Your task to perform on an android device: open app "Life360: Find Family & Friends" Image 0: 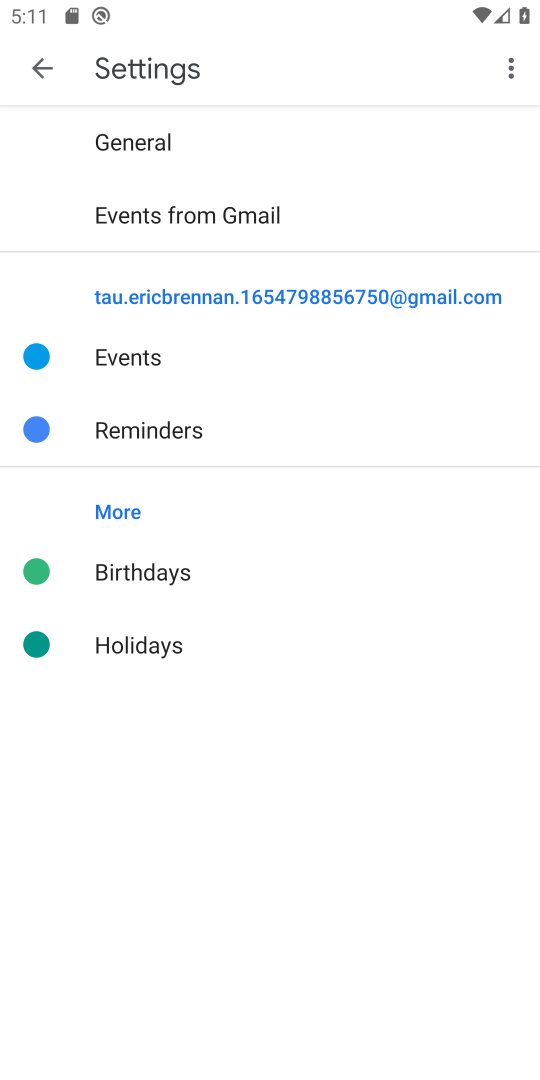
Step 0: press back button
Your task to perform on an android device: open app "Life360: Find Family & Friends" Image 1: 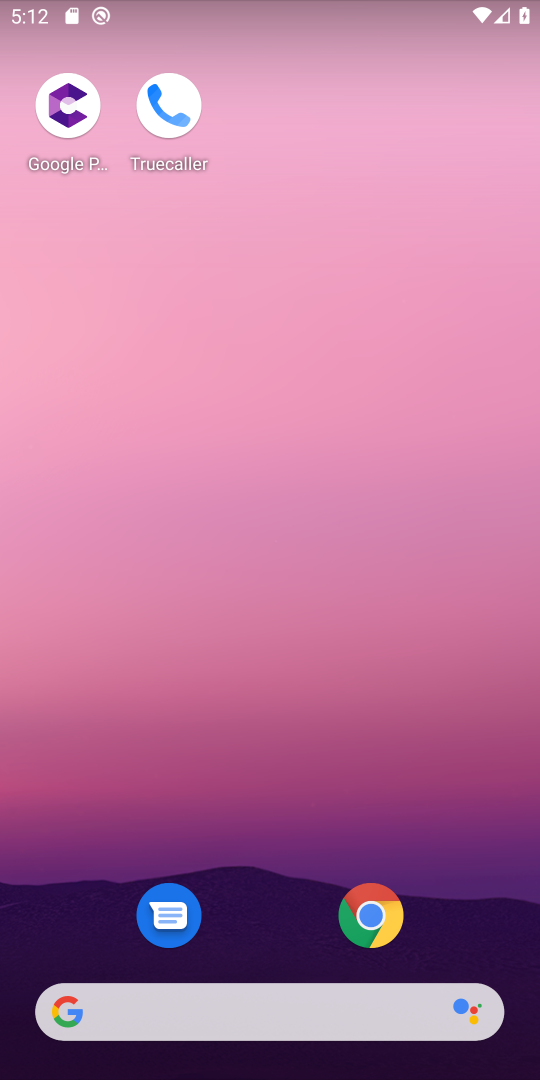
Step 1: drag from (106, 848) to (127, 216)
Your task to perform on an android device: open app "Life360: Find Family & Friends" Image 2: 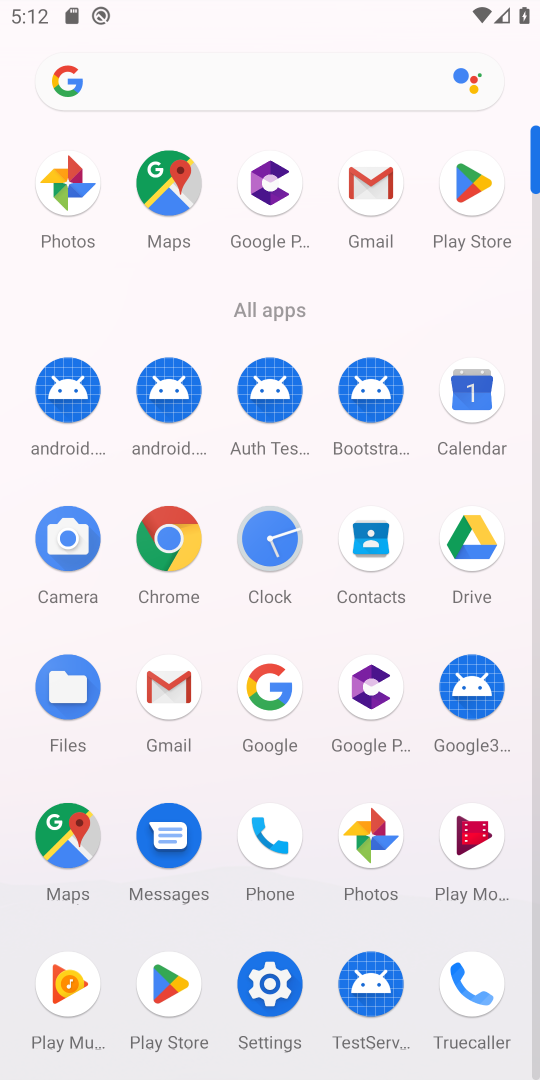
Step 2: click (472, 165)
Your task to perform on an android device: open app "Life360: Find Family & Friends" Image 3: 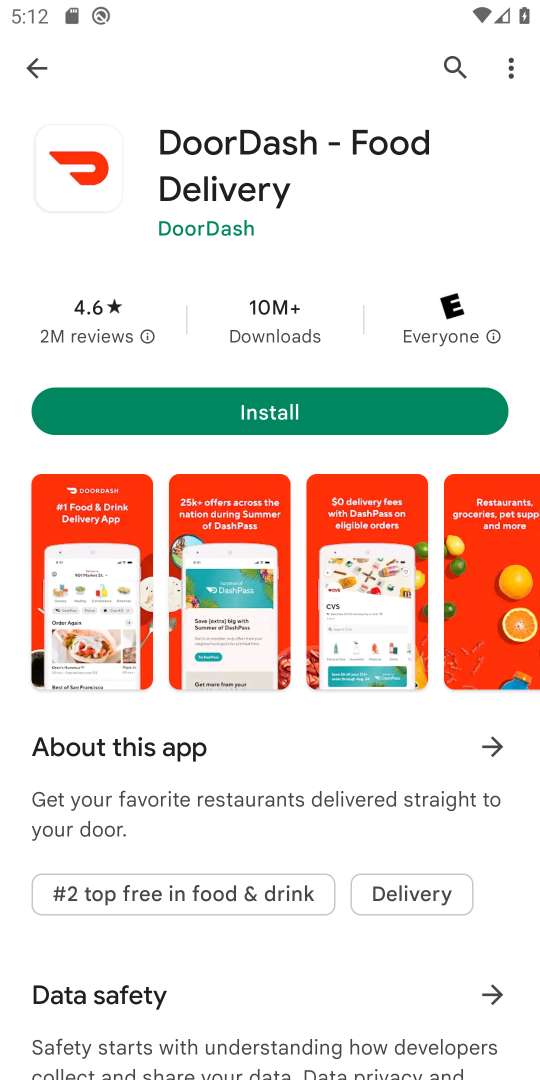
Step 3: click (447, 57)
Your task to perform on an android device: open app "Life360: Find Family & Friends" Image 4: 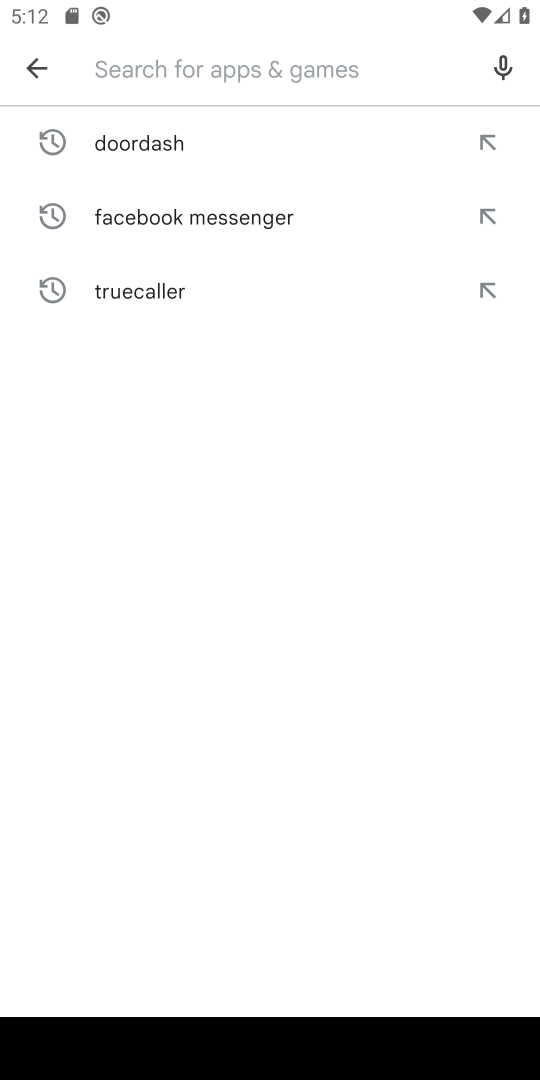
Step 4: type "life360"
Your task to perform on an android device: open app "Life360: Find Family & Friends" Image 5: 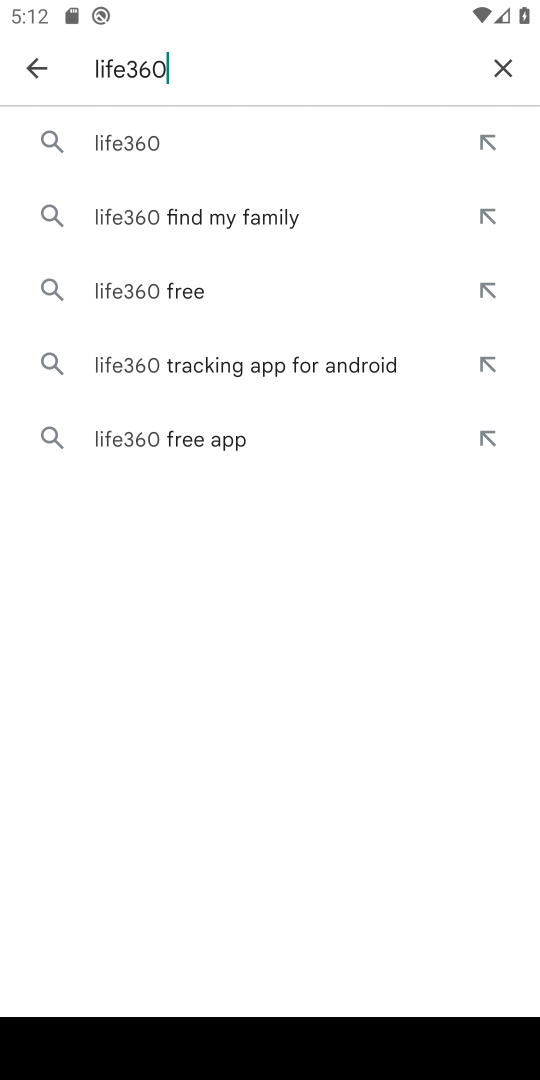
Step 5: click (182, 147)
Your task to perform on an android device: open app "Life360: Find Family & Friends" Image 6: 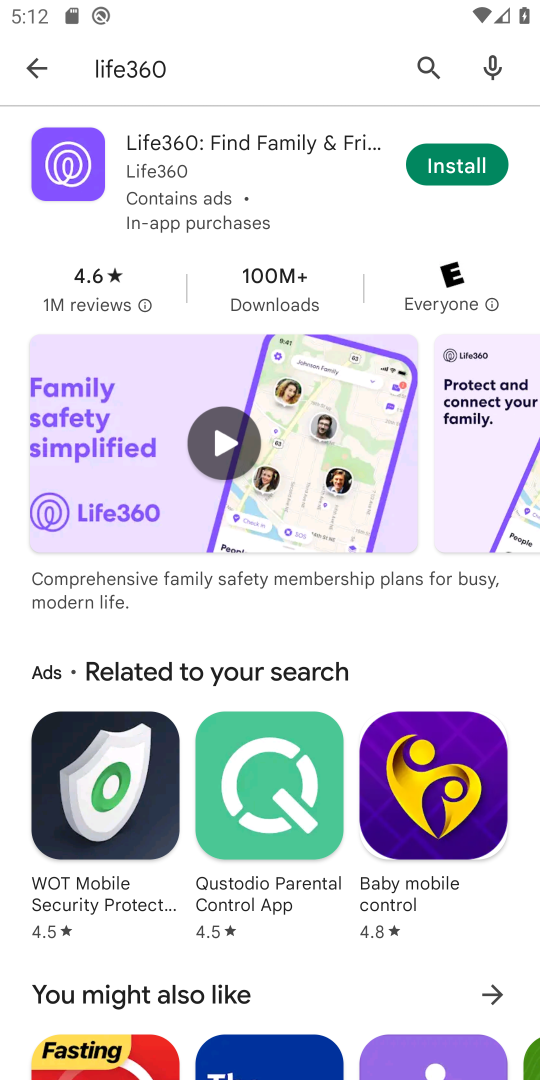
Step 6: task complete